Your task to perform on an android device: Empty the shopping cart on newegg.com. Add lg ultragear to the cart on newegg.com, then select checkout. Image 0: 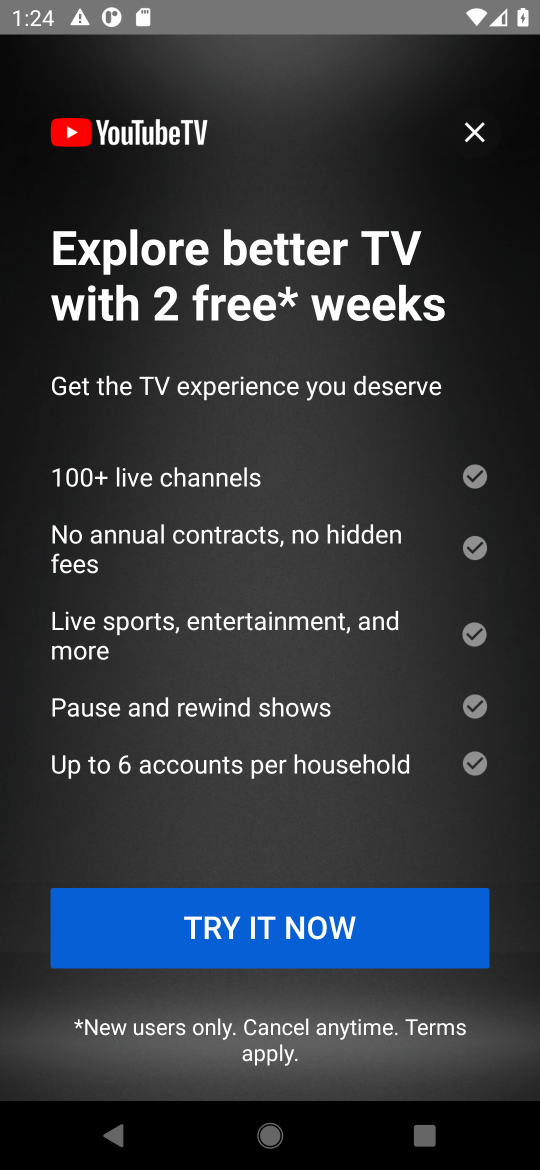
Step 0: press home button
Your task to perform on an android device: Empty the shopping cart on newegg.com. Add lg ultragear to the cart on newegg.com, then select checkout. Image 1: 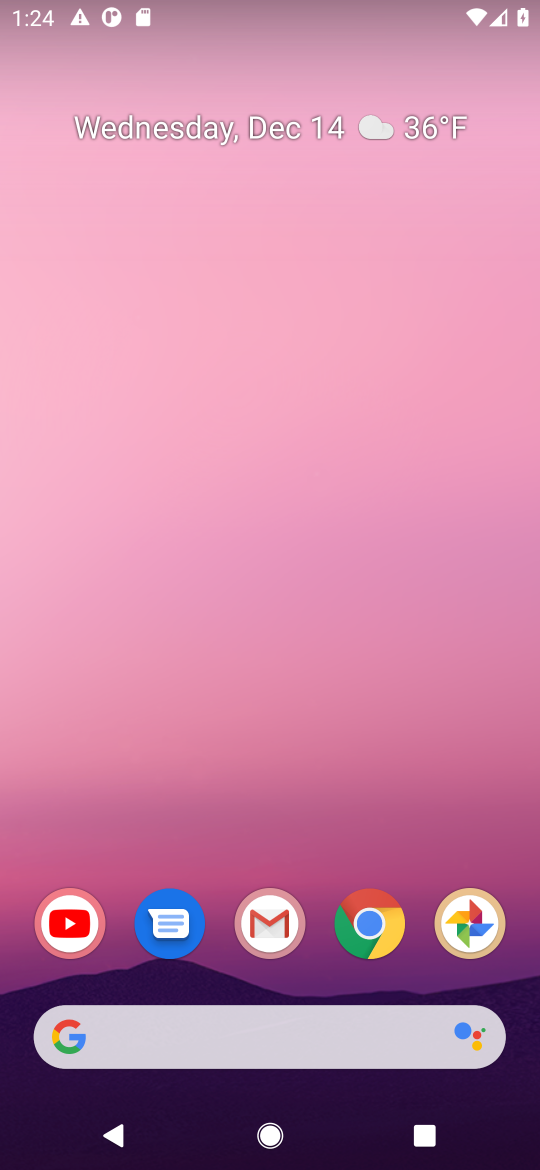
Step 1: click (374, 933)
Your task to perform on an android device: Empty the shopping cart on newegg.com. Add lg ultragear to the cart on newegg.com, then select checkout. Image 2: 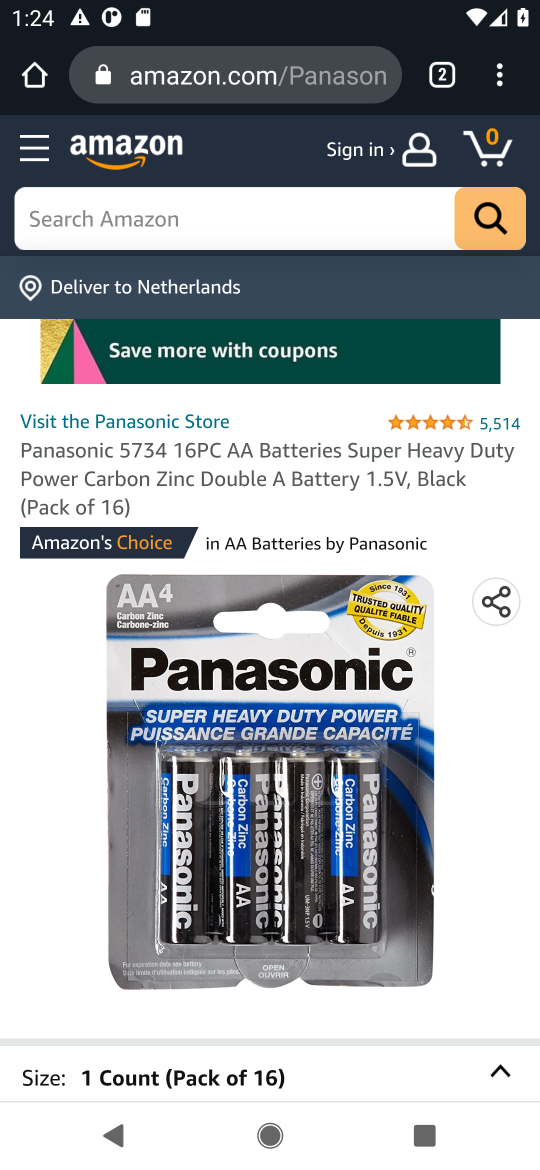
Step 2: click (232, 94)
Your task to perform on an android device: Empty the shopping cart on newegg.com. Add lg ultragear to the cart on newegg.com, then select checkout. Image 3: 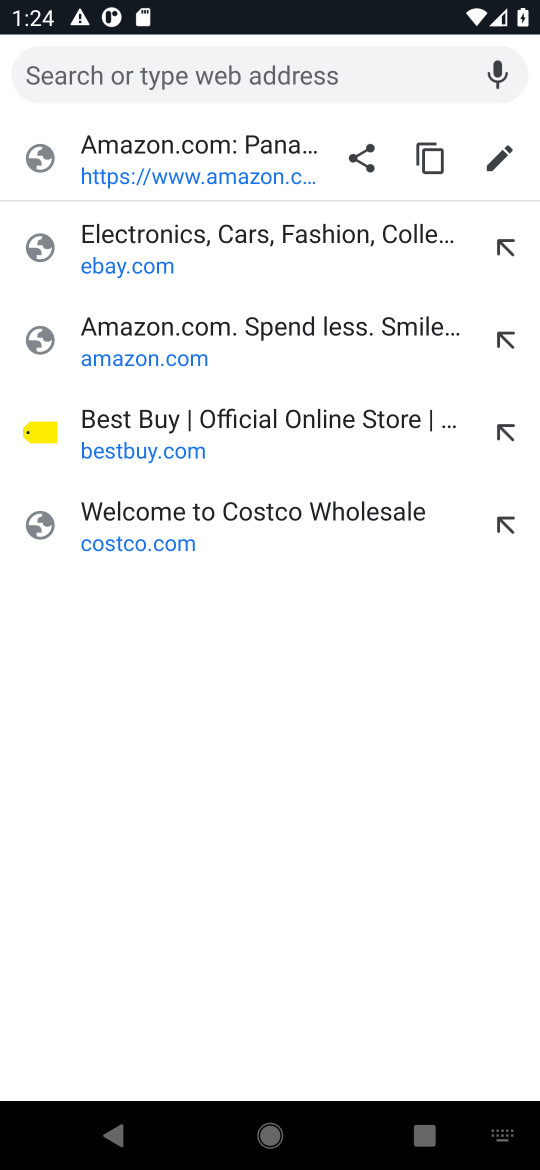
Step 3: type "newegg"
Your task to perform on an android device: Empty the shopping cart on newegg.com. Add lg ultragear to the cart on newegg.com, then select checkout. Image 4: 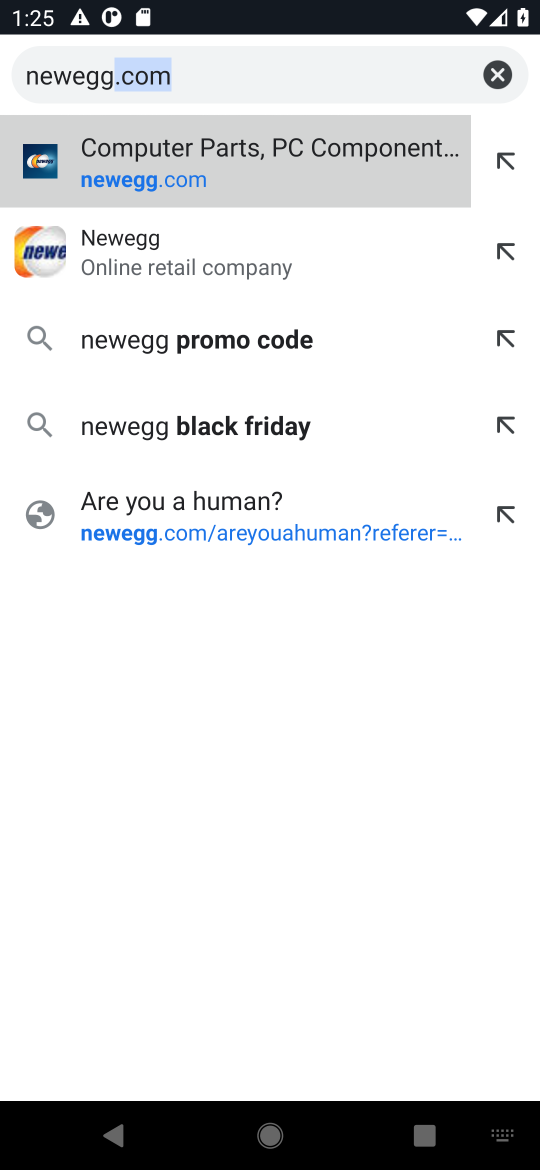
Step 4: click (219, 158)
Your task to perform on an android device: Empty the shopping cart on newegg.com. Add lg ultragear to the cart on newegg.com, then select checkout. Image 5: 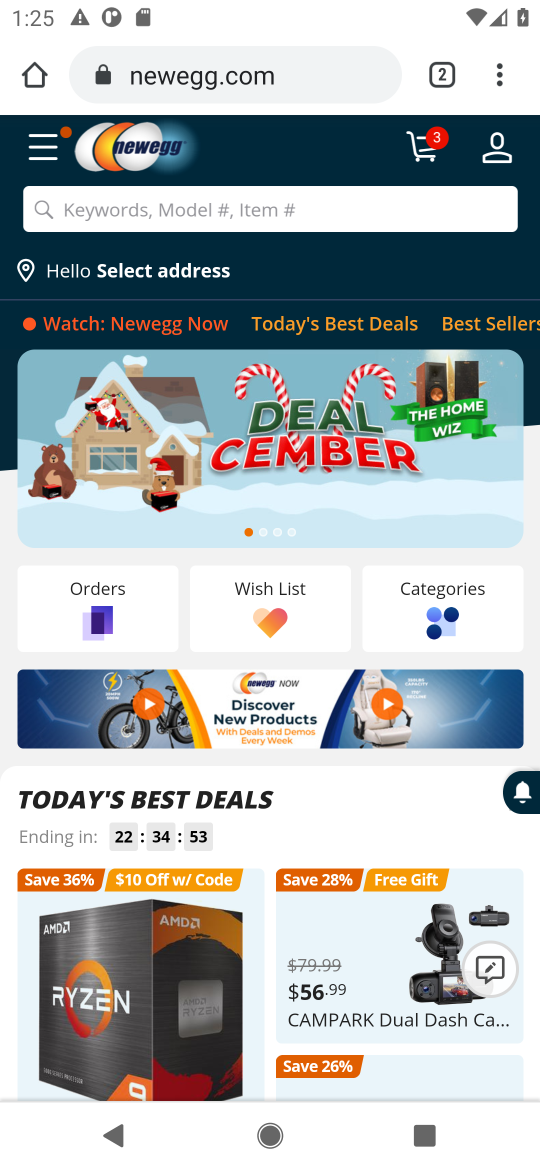
Step 5: click (411, 164)
Your task to perform on an android device: Empty the shopping cart on newegg.com. Add lg ultragear to the cart on newegg.com, then select checkout. Image 6: 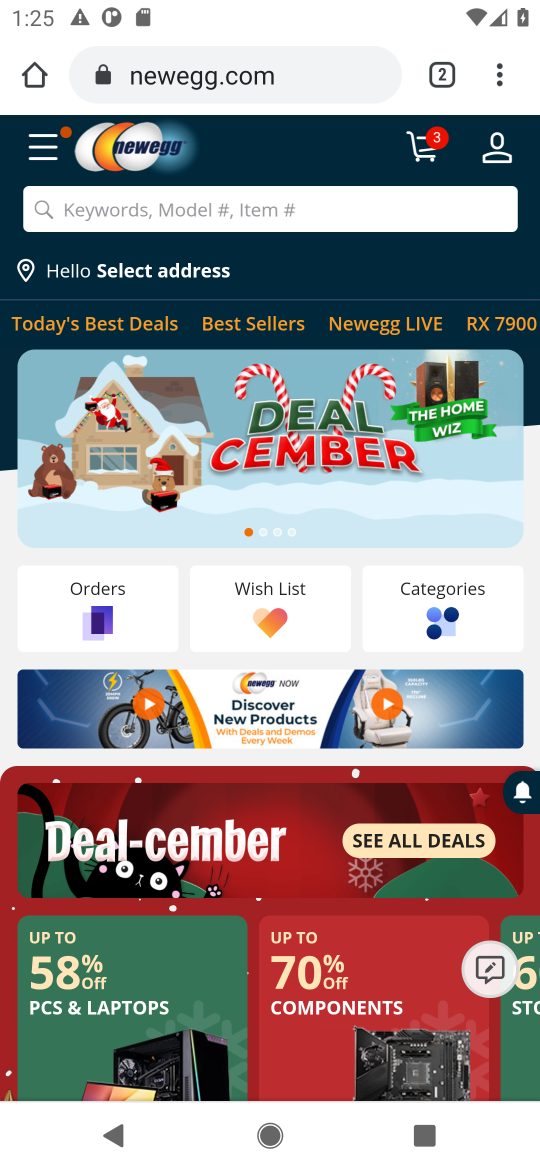
Step 6: click (411, 164)
Your task to perform on an android device: Empty the shopping cart on newegg.com. Add lg ultragear to the cart on newegg.com, then select checkout. Image 7: 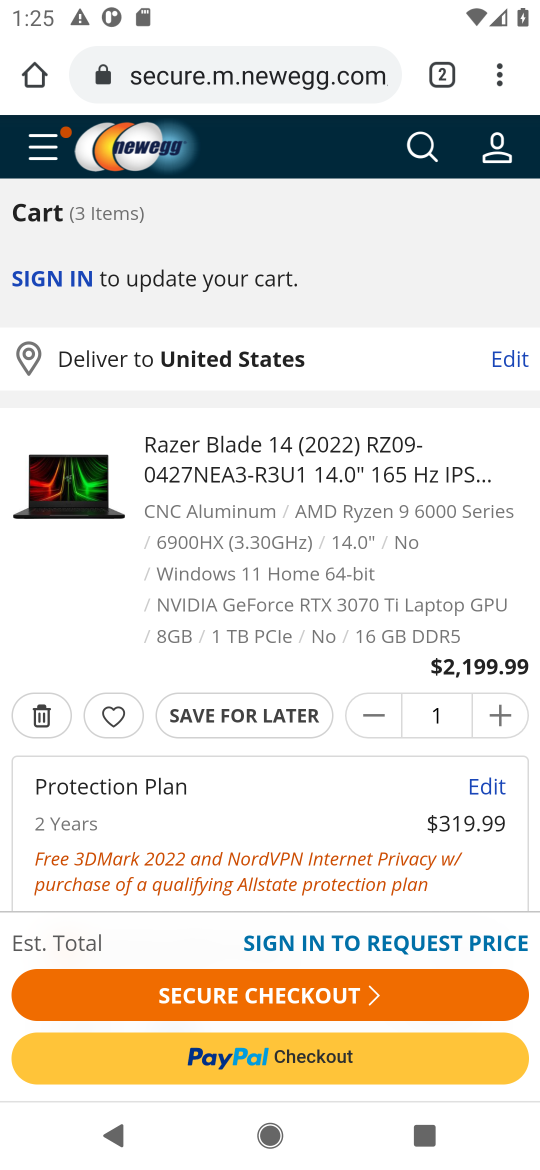
Step 7: click (18, 719)
Your task to perform on an android device: Empty the shopping cart on newegg.com. Add lg ultragear to the cart on newegg.com, then select checkout. Image 8: 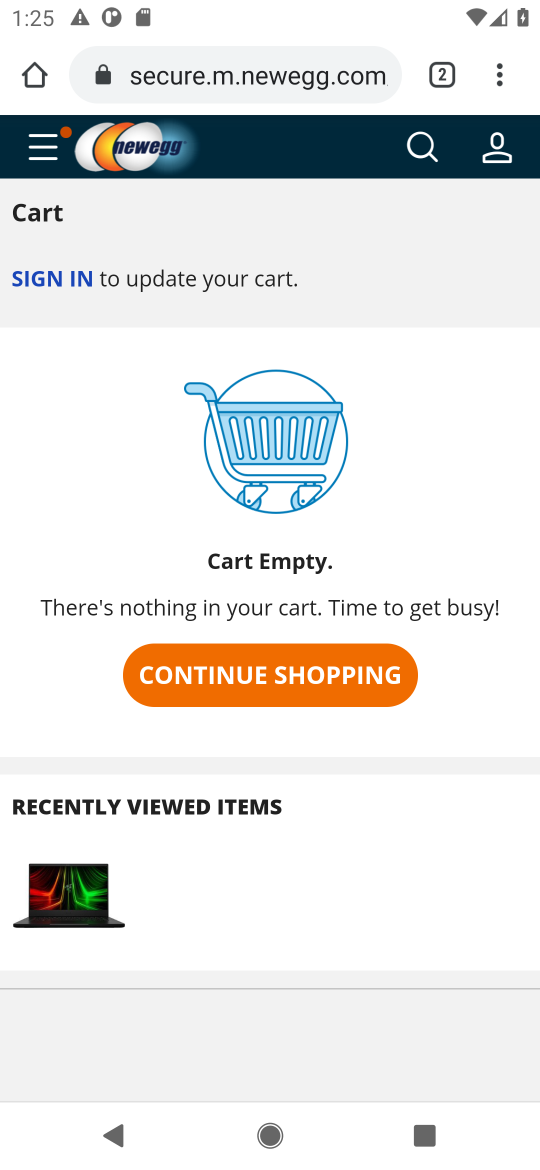
Step 8: click (414, 164)
Your task to perform on an android device: Empty the shopping cart on newegg.com. Add lg ultragear to the cart on newegg.com, then select checkout. Image 9: 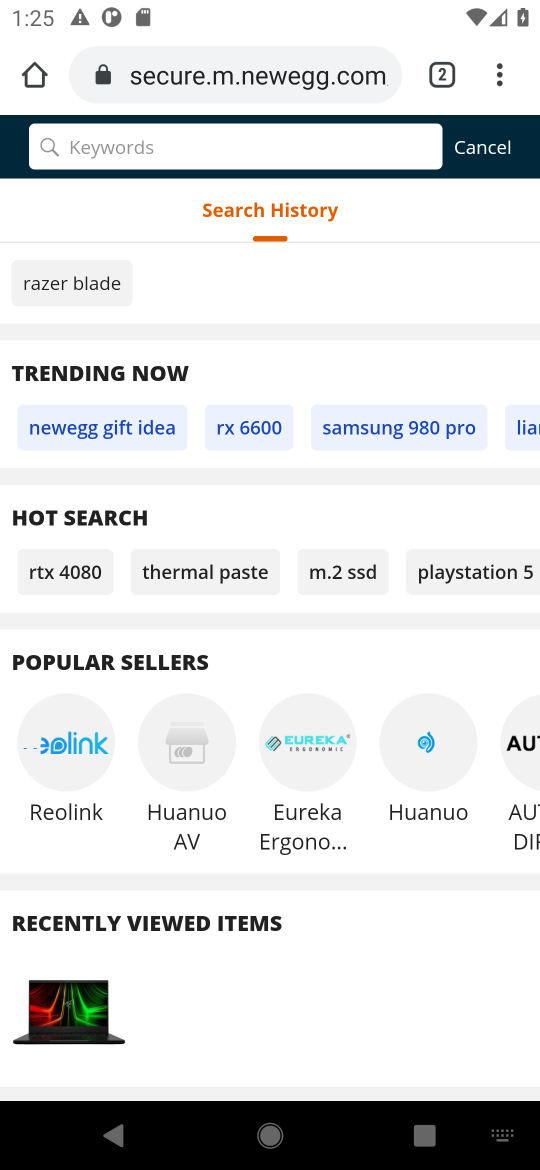
Step 9: type "lg ultragear"
Your task to perform on an android device: Empty the shopping cart on newegg.com. Add lg ultragear to the cart on newegg.com, then select checkout. Image 10: 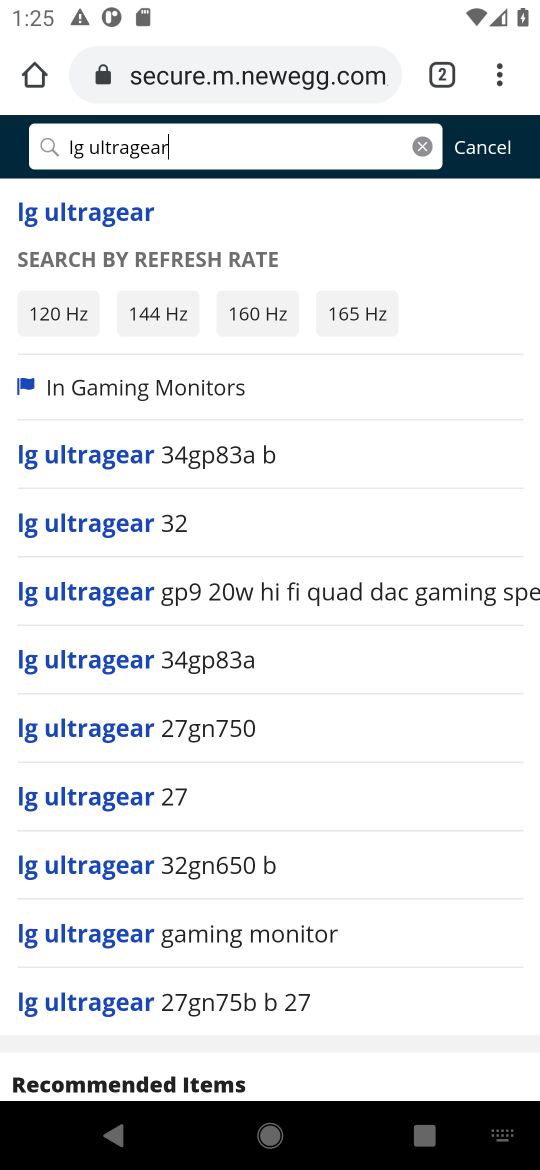
Step 10: click (44, 230)
Your task to perform on an android device: Empty the shopping cart on newegg.com. Add lg ultragear to the cart on newegg.com, then select checkout. Image 11: 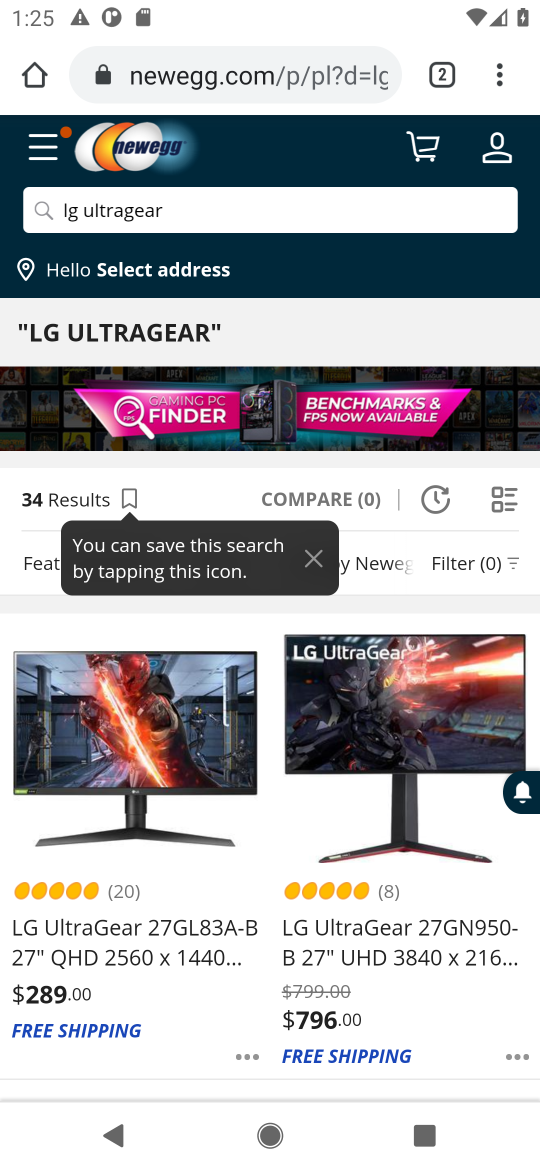
Step 11: click (198, 769)
Your task to perform on an android device: Empty the shopping cart on newegg.com. Add lg ultragear to the cart on newegg.com, then select checkout. Image 12: 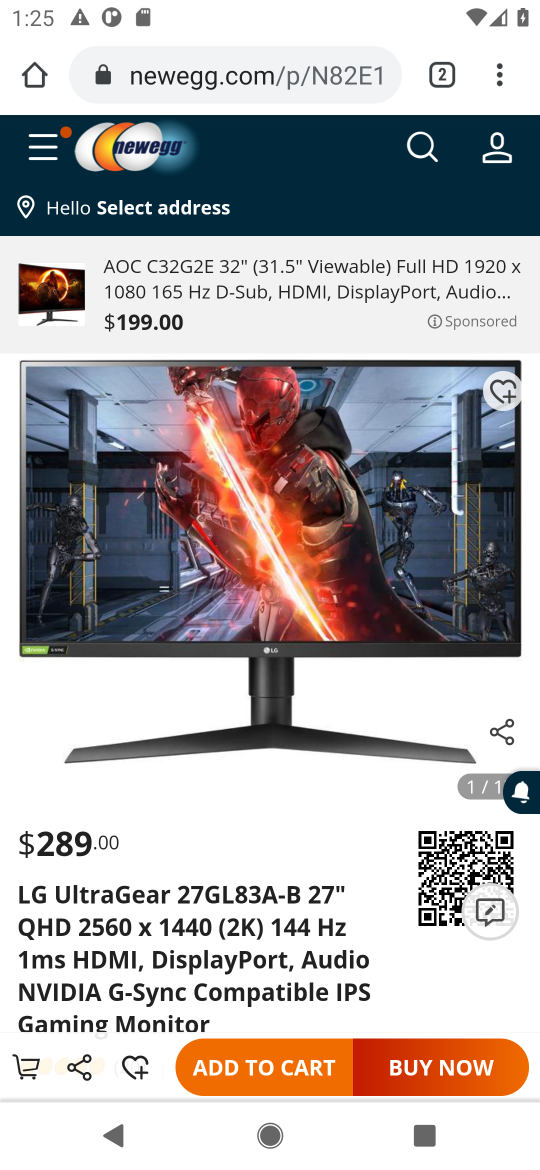
Step 12: click (272, 1052)
Your task to perform on an android device: Empty the shopping cart on newegg.com. Add lg ultragear to the cart on newegg.com, then select checkout. Image 13: 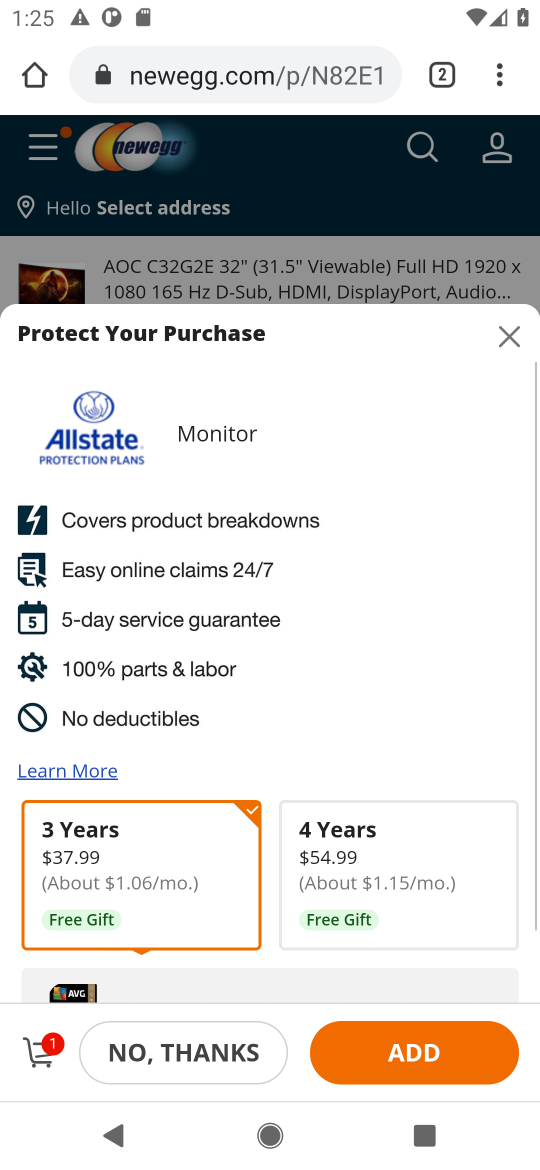
Step 13: task complete